Your task to perform on an android device: set the stopwatch Image 0: 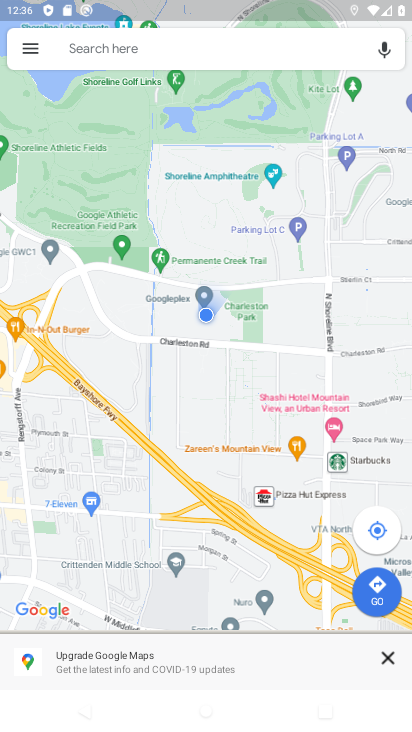
Step 0: press home button
Your task to perform on an android device: set the stopwatch Image 1: 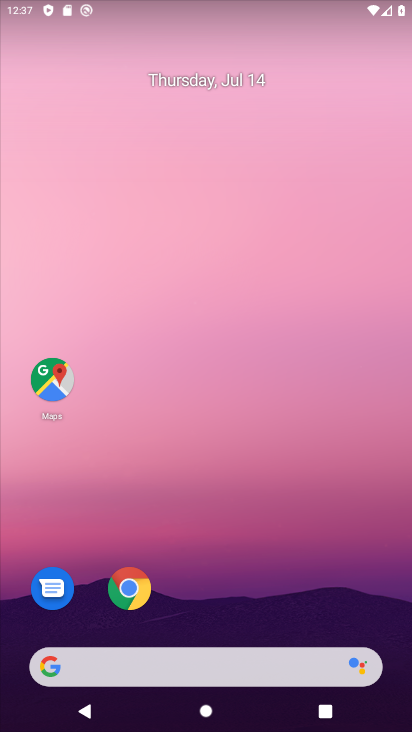
Step 1: drag from (274, 633) to (243, 24)
Your task to perform on an android device: set the stopwatch Image 2: 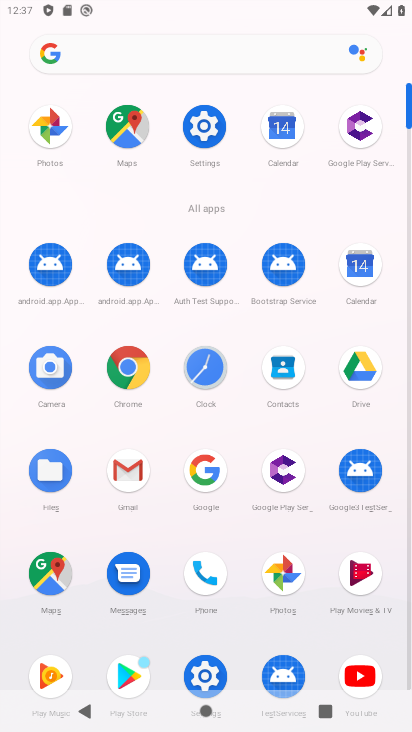
Step 2: click (210, 367)
Your task to perform on an android device: set the stopwatch Image 3: 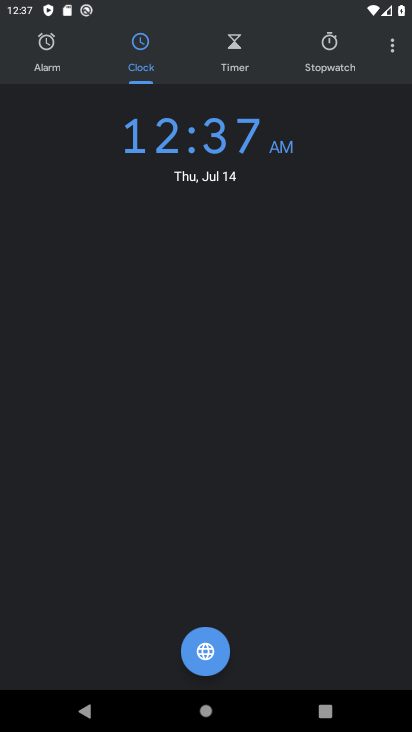
Step 3: click (326, 54)
Your task to perform on an android device: set the stopwatch Image 4: 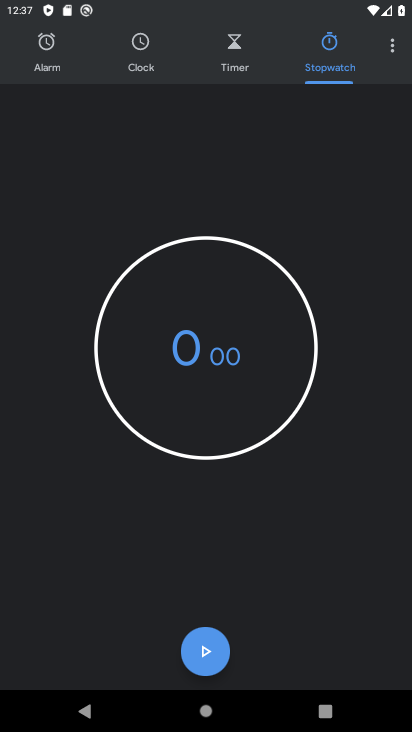
Step 4: task complete